Your task to perform on an android device: Go to Google maps Image 0: 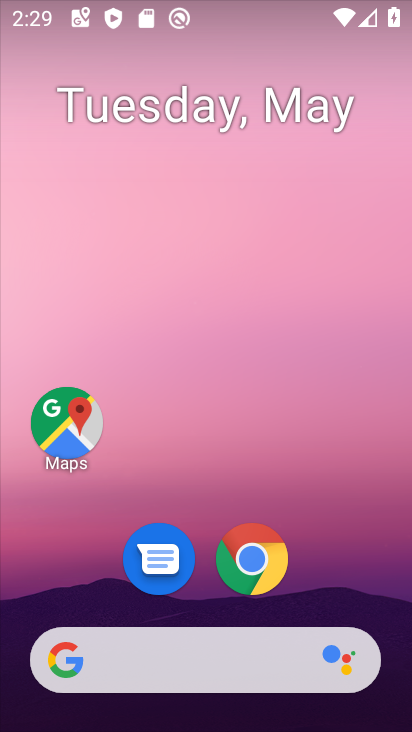
Step 0: click (67, 429)
Your task to perform on an android device: Go to Google maps Image 1: 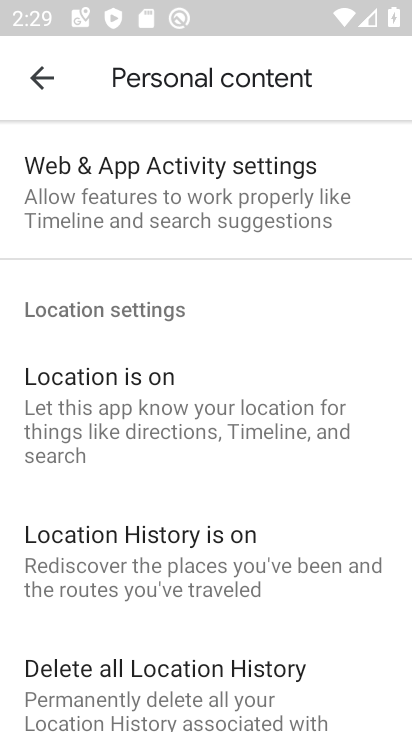
Step 1: click (51, 76)
Your task to perform on an android device: Go to Google maps Image 2: 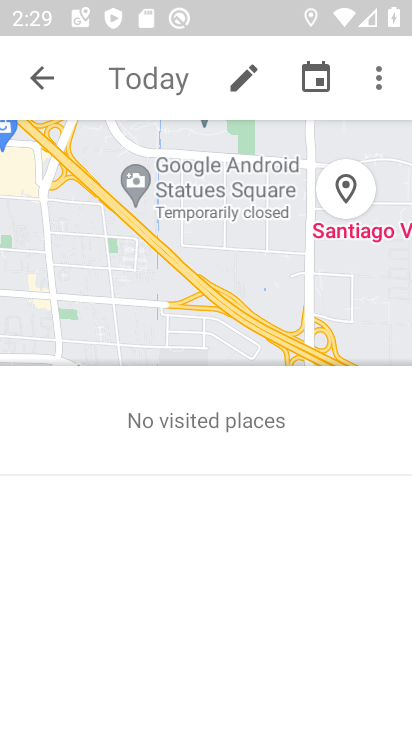
Step 2: click (46, 79)
Your task to perform on an android device: Go to Google maps Image 3: 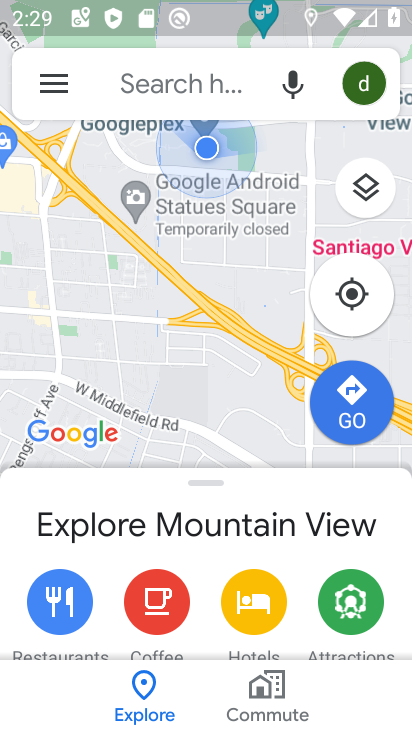
Step 3: task complete